Your task to perform on an android device: Open Google Maps and go to "Timeline" Image 0: 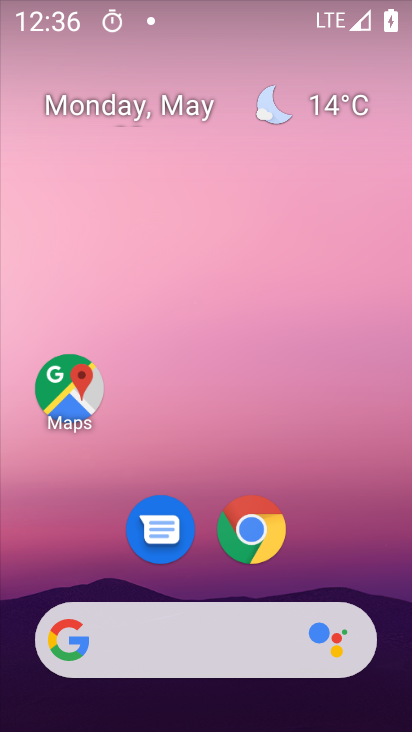
Step 0: drag from (397, 591) to (408, 400)
Your task to perform on an android device: Open Google Maps and go to "Timeline" Image 1: 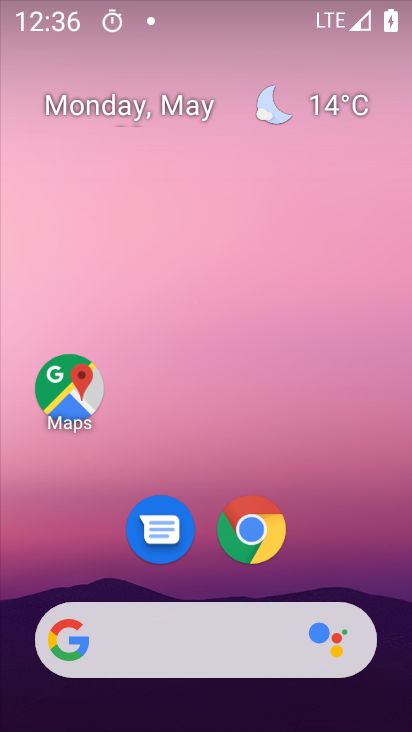
Step 1: drag from (368, 567) to (365, 136)
Your task to perform on an android device: Open Google Maps and go to "Timeline" Image 2: 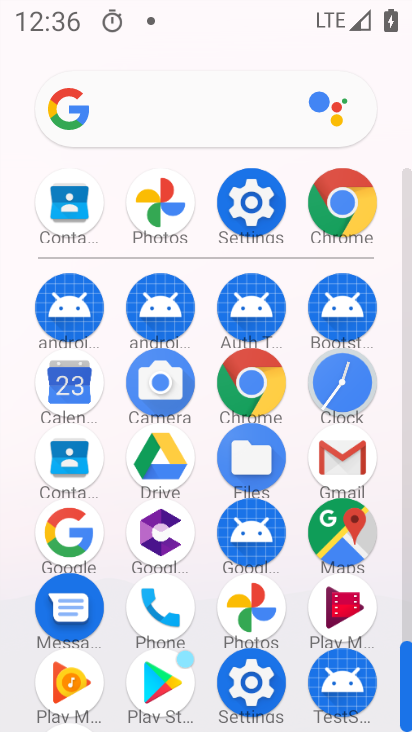
Step 2: click (369, 539)
Your task to perform on an android device: Open Google Maps and go to "Timeline" Image 3: 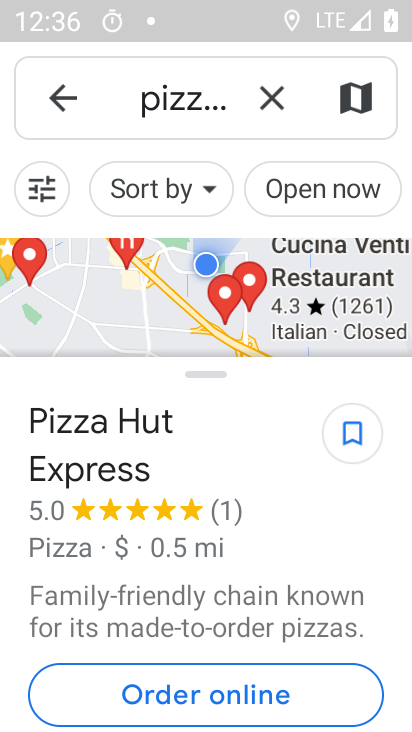
Step 3: click (69, 104)
Your task to perform on an android device: Open Google Maps and go to "Timeline" Image 4: 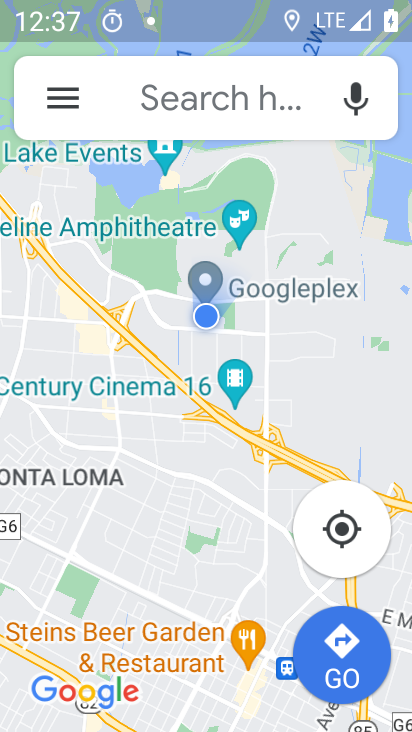
Step 4: click (69, 112)
Your task to perform on an android device: Open Google Maps and go to "Timeline" Image 5: 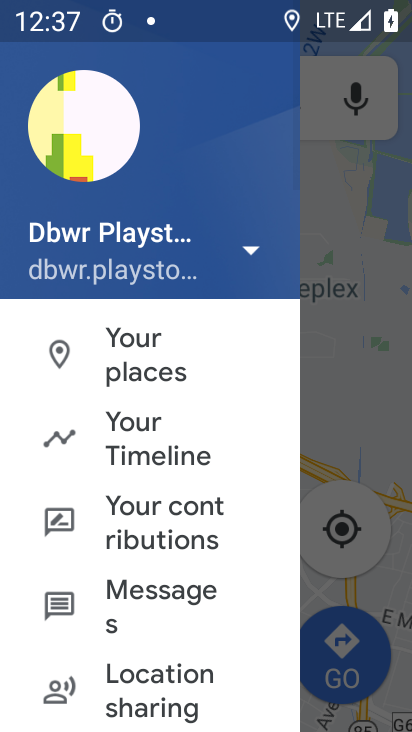
Step 5: drag from (241, 494) to (247, 393)
Your task to perform on an android device: Open Google Maps and go to "Timeline" Image 6: 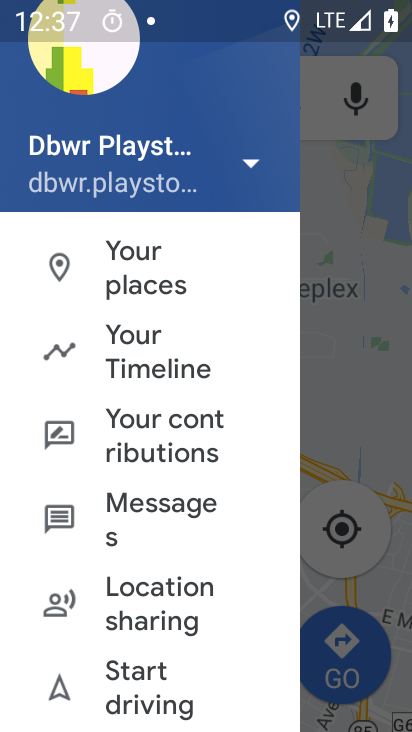
Step 6: drag from (230, 545) to (243, 432)
Your task to perform on an android device: Open Google Maps and go to "Timeline" Image 7: 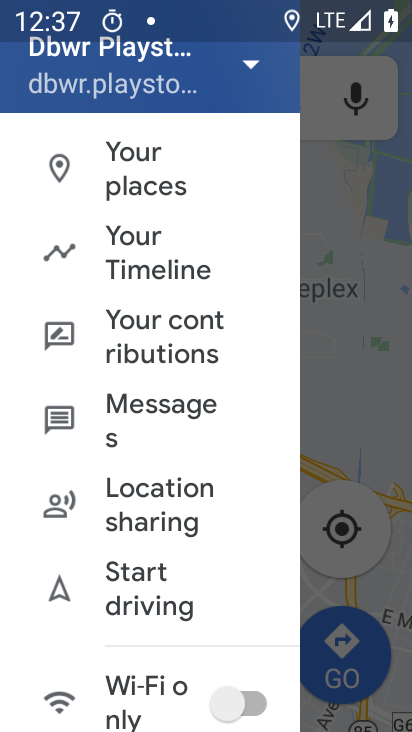
Step 7: drag from (232, 569) to (240, 445)
Your task to perform on an android device: Open Google Maps and go to "Timeline" Image 8: 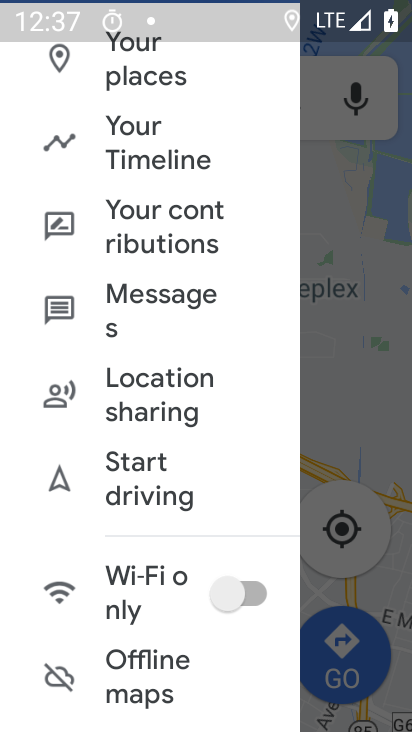
Step 8: drag from (219, 561) to (231, 432)
Your task to perform on an android device: Open Google Maps and go to "Timeline" Image 9: 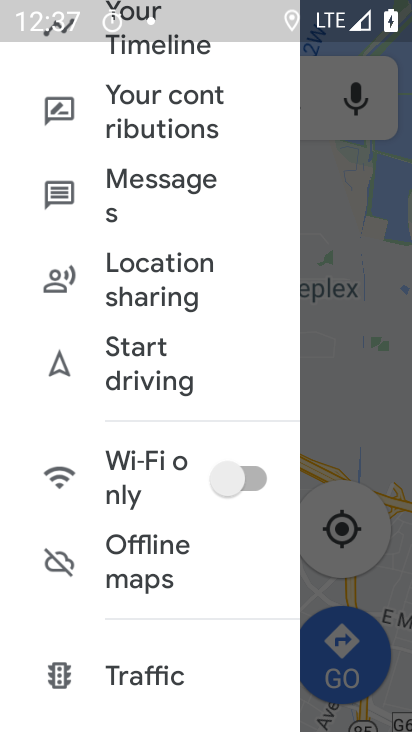
Step 9: drag from (233, 622) to (246, 519)
Your task to perform on an android device: Open Google Maps and go to "Timeline" Image 10: 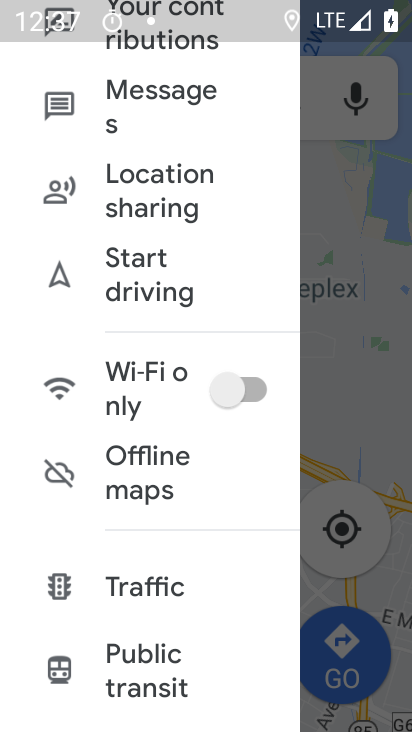
Step 10: drag from (229, 645) to (241, 509)
Your task to perform on an android device: Open Google Maps and go to "Timeline" Image 11: 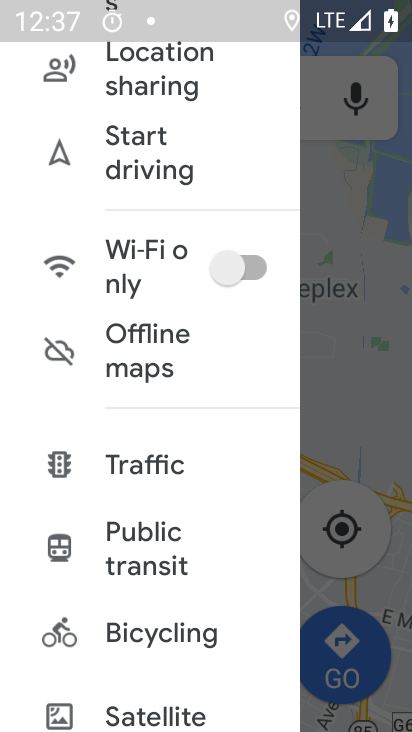
Step 11: drag from (237, 668) to (239, 578)
Your task to perform on an android device: Open Google Maps and go to "Timeline" Image 12: 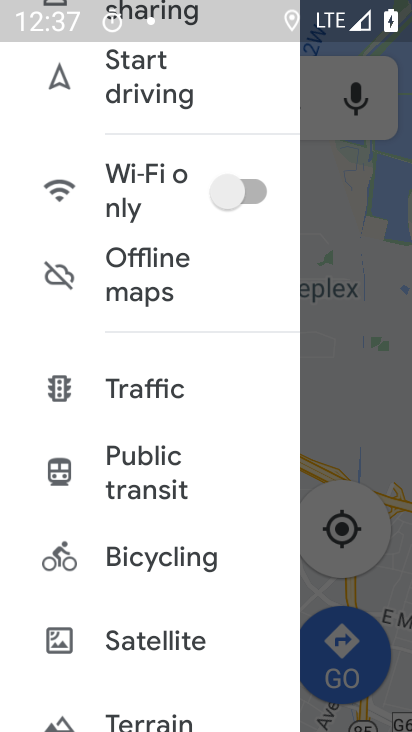
Step 12: drag from (237, 680) to (239, 544)
Your task to perform on an android device: Open Google Maps and go to "Timeline" Image 13: 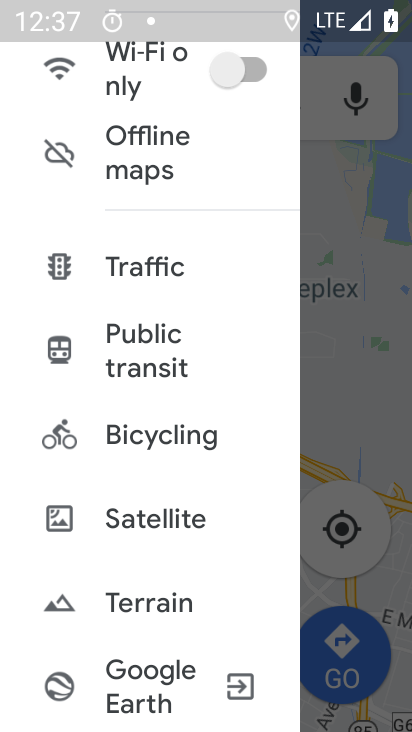
Step 13: drag from (248, 653) to (266, 530)
Your task to perform on an android device: Open Google Maps and go to "Timeline" Image 14: 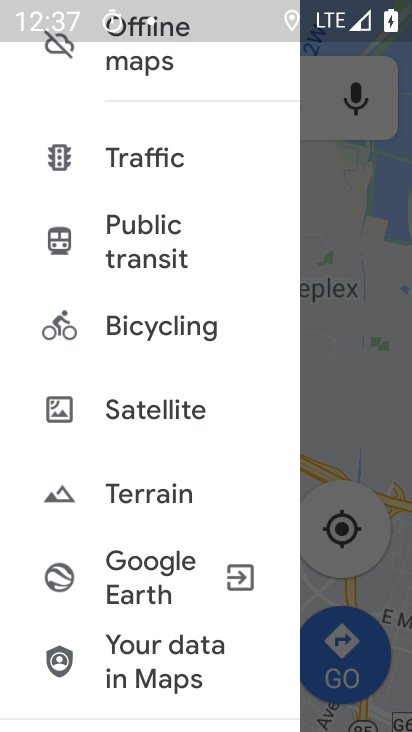
Step 14: drag from (257, 684) to (255, 464)
Your task to perform on an android device: Open Google Maps and go to "Timeline" Image 15: 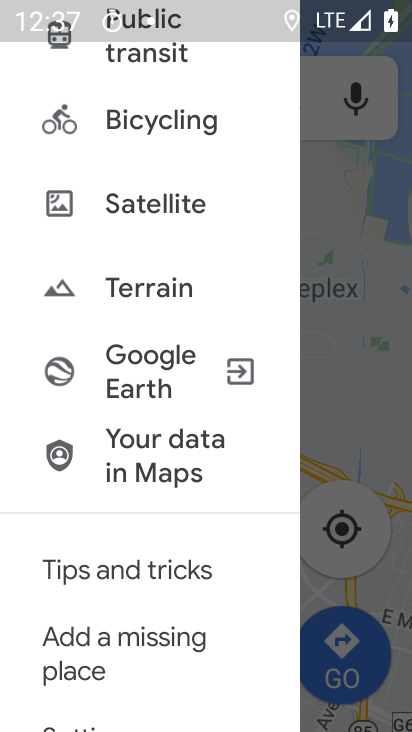
Step 15: drag from (263, 334) to (263, 461)
Your task to perform on an android device: Open Google Maps and go to "Timeline" Image 16: 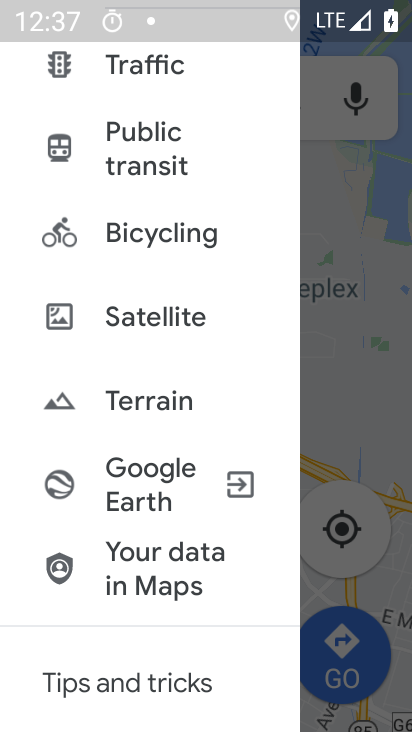
Step 16: drag from (254, 324) to (262, 469)
Your task to perform on an android device: Open Google Maps and go to "Timeline" Image 17: 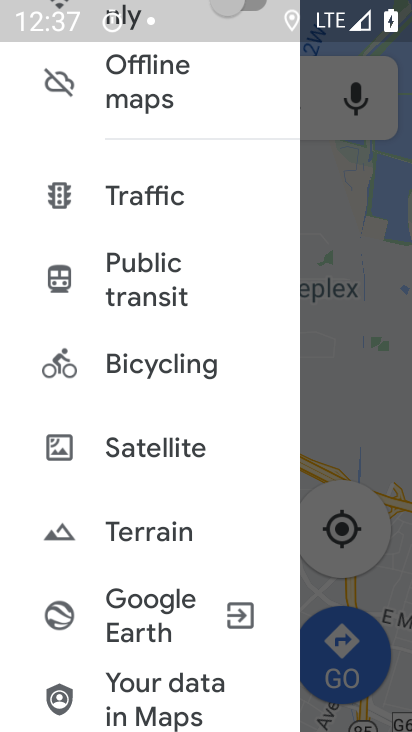
Step 17: drag from (265, 288) to (264, 422)
Your task to perform on an android device: Open Google Maps and go to "Timeline" Image 18: 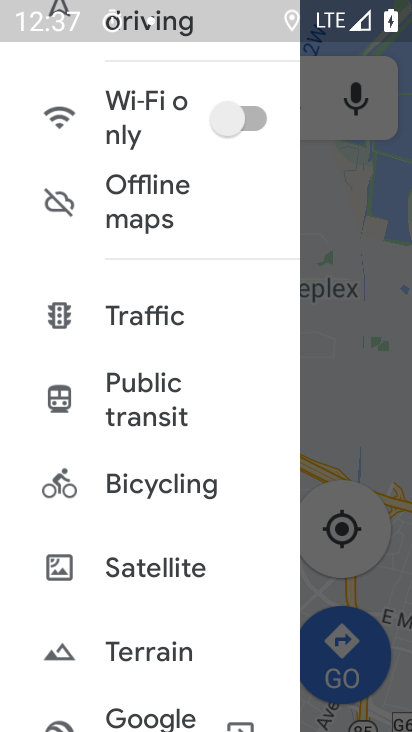
Step 18: drag from (238, 257) to (239, 418)
Your task to perform on an android device: Open Google Maps and go to "Timeline" Image 19: 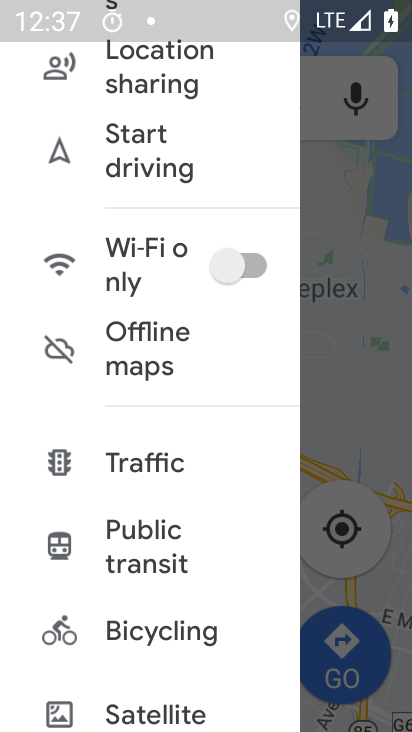
Step 19: drag from (243, 188) to (241, 405)
Your task to perform on an android device: Open Google Maps and go to "Timeline" Image 20: 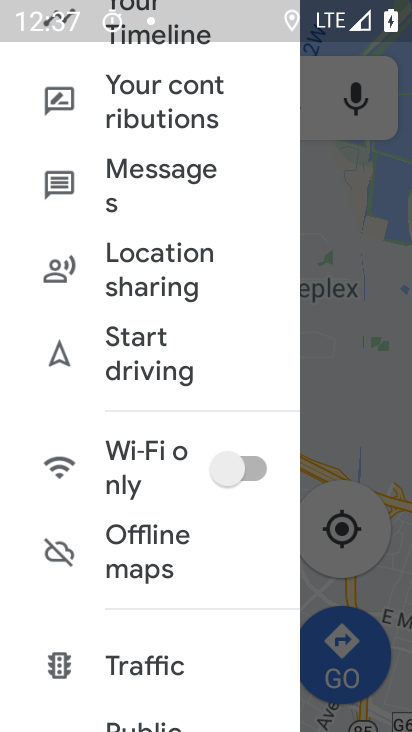
Step 20: drag from (243, 183) to (244, 346)
Your task to perform on an android device: Open Google Maps and go to "Timeline" Image 21: 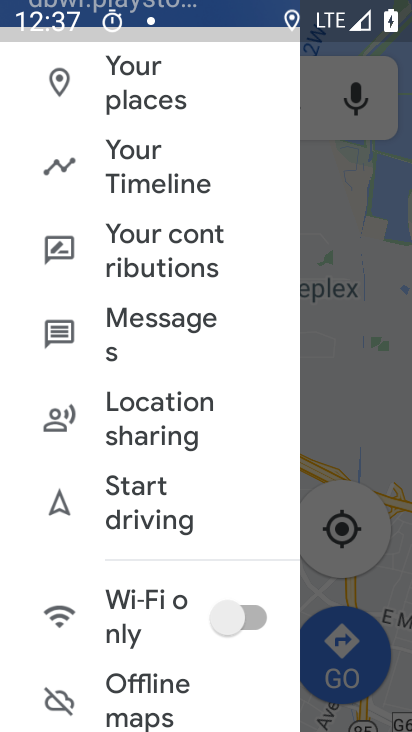
Step 21: click (214, 186)
Your task to perform on an android device: Open Google Maps and go to "Timeline" Image 22: 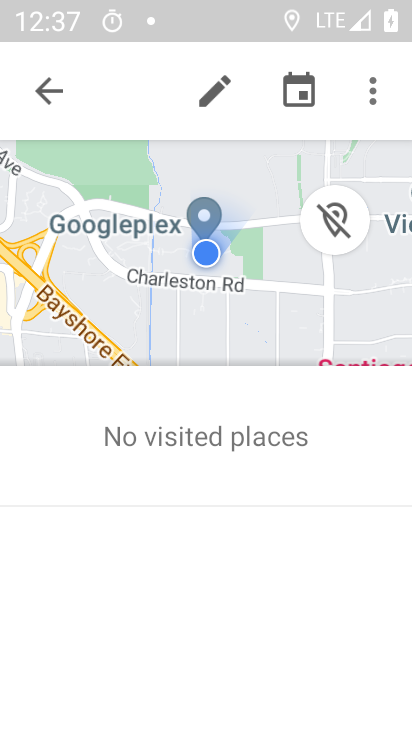
Step 22: task complete